Your task to perform on an android device: open sync settings in chrome Image 0: 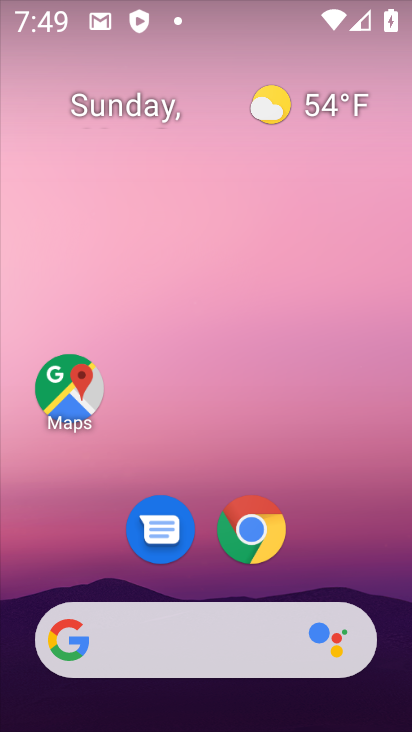
Step 0: click (229, 531)
Your task to perform on an android device: open sync settings in chrome Image 1: 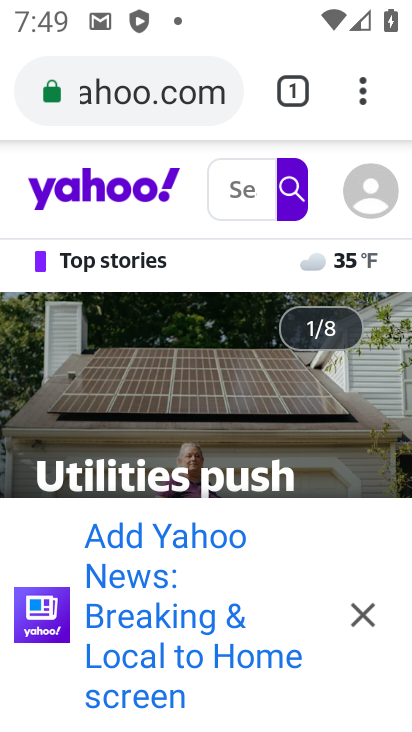
Step 1: click (356, 100)
Your task to perform on an android device: open sync settings in chrome Image 2: 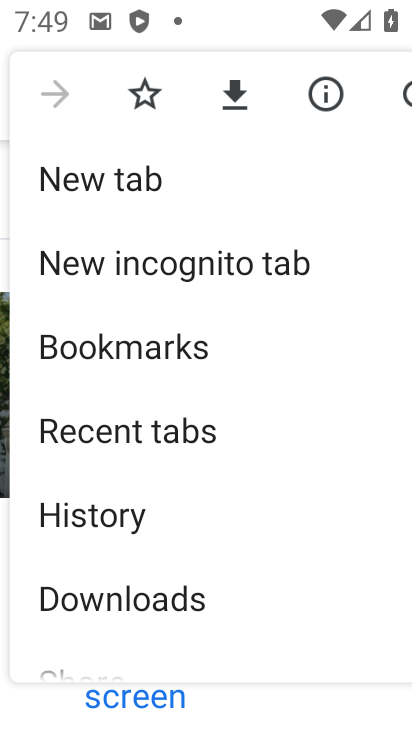
Step 2: drag from (159, 550) to (206, 210)
Your task to perform on an android device: open sync settings in chrome Image 3: 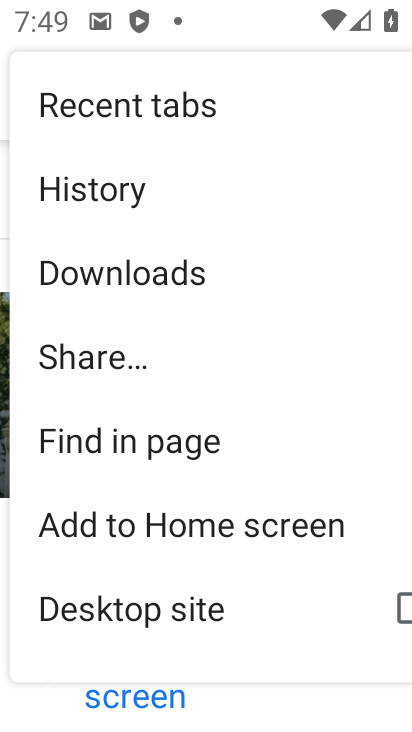
Step 3: drag from (137, 520) to (219, 213)
Your task to perform on an android device: open sync settings in chrome Image 4: 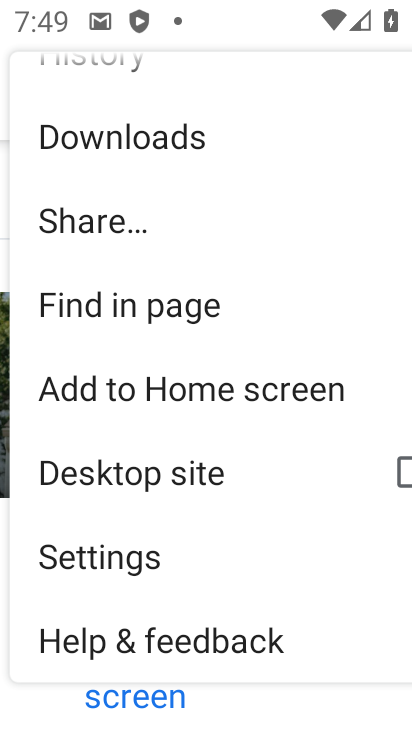
Step 4: click (113, 573)
Your task to perform on an android device: open sync settings in chrome Image 5: 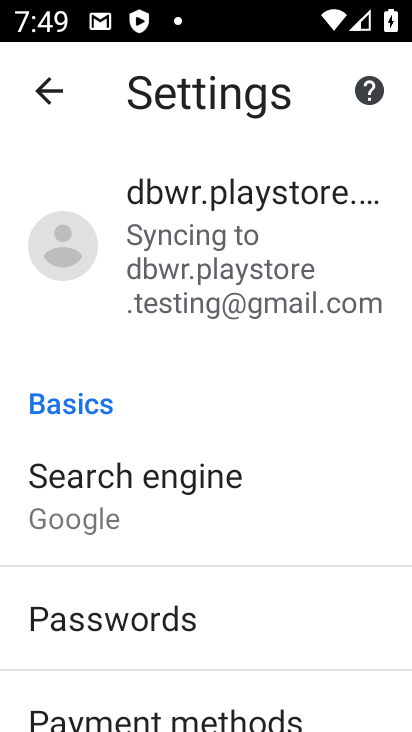
Step 5: click (250, 288)
Your task to perform on an android device: open sync settings in chrome Image 6: 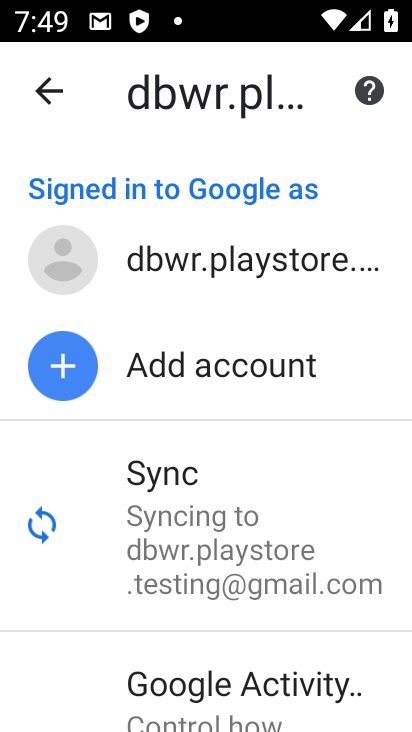
Step 6: click (208, 510)
Your task to perform on an android device: open sync settings in chrome Image 7: 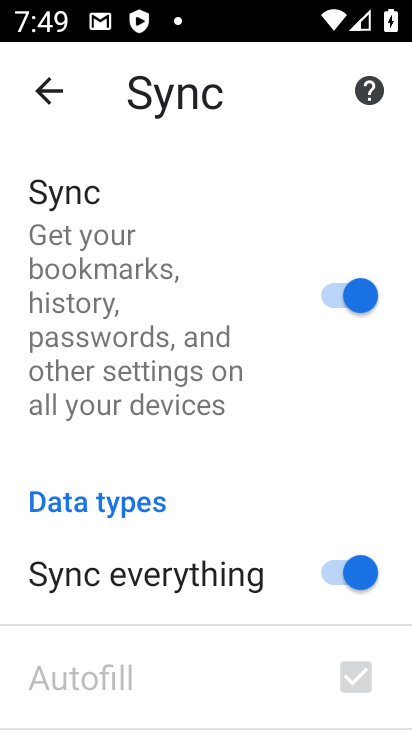
Step 7: task complete